Your task to perform on an android device: turn notification dots on Image 0: 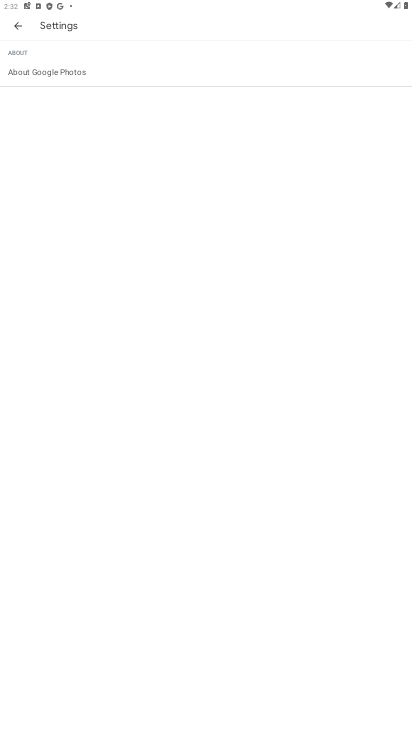
Step 0: press home button
Your task to perform on an android device: turn notification dots on Image 1: 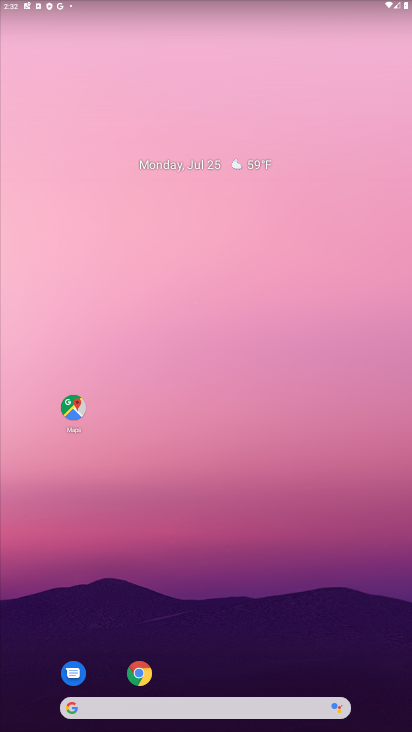
Step 1: drag from (256, 625) to (297, 68)
Your task to perform on an android device: turn notification dots on Image 2: 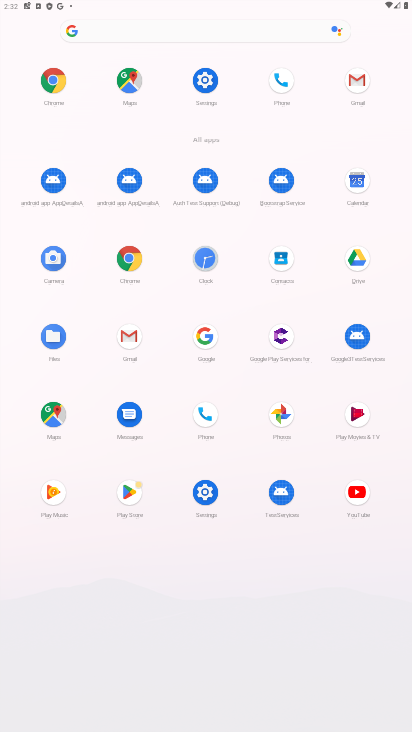
Step 2: click (199, 75)
Your task to perform on an android device: turn notification dots on Image 3: 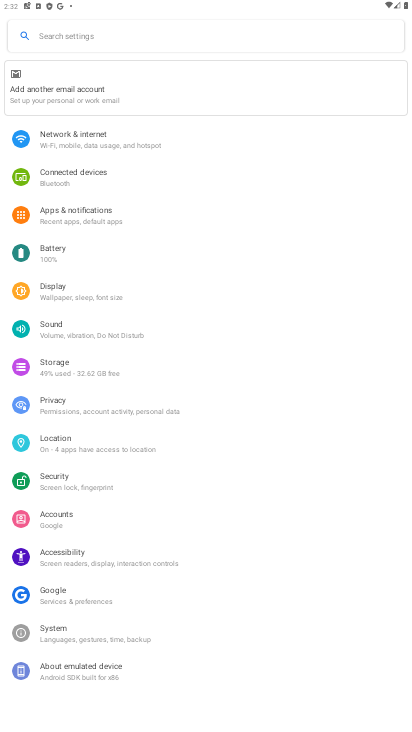
Step 3: click (79, 223)
Your task to perform on an android device: turn notification dots on Image 4: 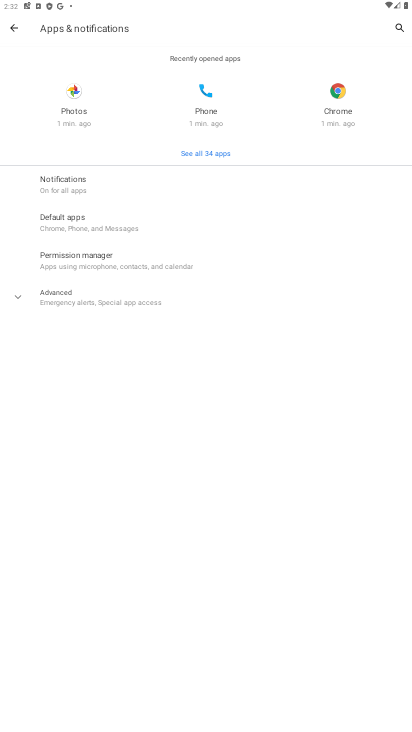
Step 4: click (85, 190)
Your task to perform on an android device: turn notification dots on Image 5: 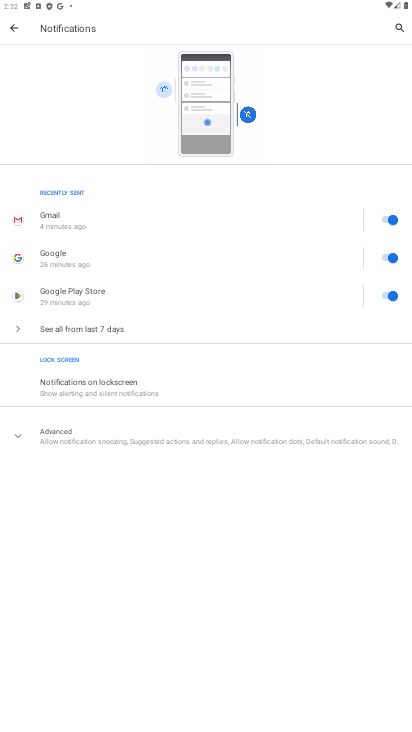
Step 5: click (148, 395)
Your task to perform on an android device: turn notification dots on Image 6: 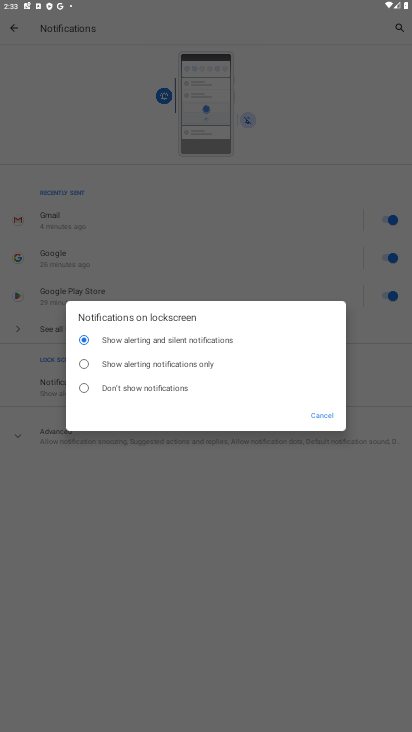
Step 6: click (312, 420)
Your task to perform on an android device: turn notification dots on Image 7: 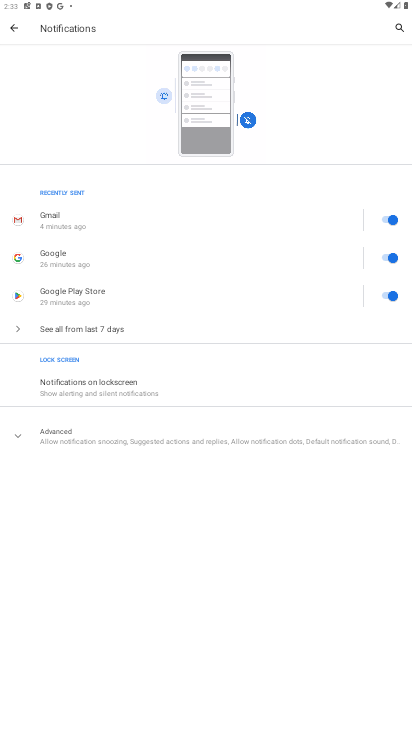
Step 7: click (292, 439)
Your task to perform on an android device: turn notification dots on Image 8: 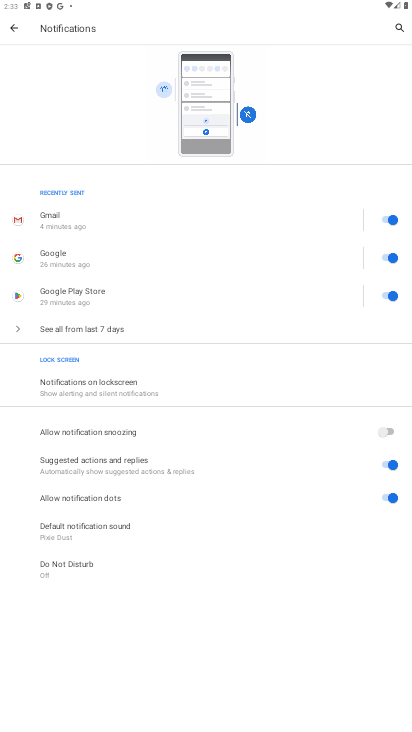
Step 8: task complete